Your task to perform on an android device: add a contact in the contacts app Image 0: 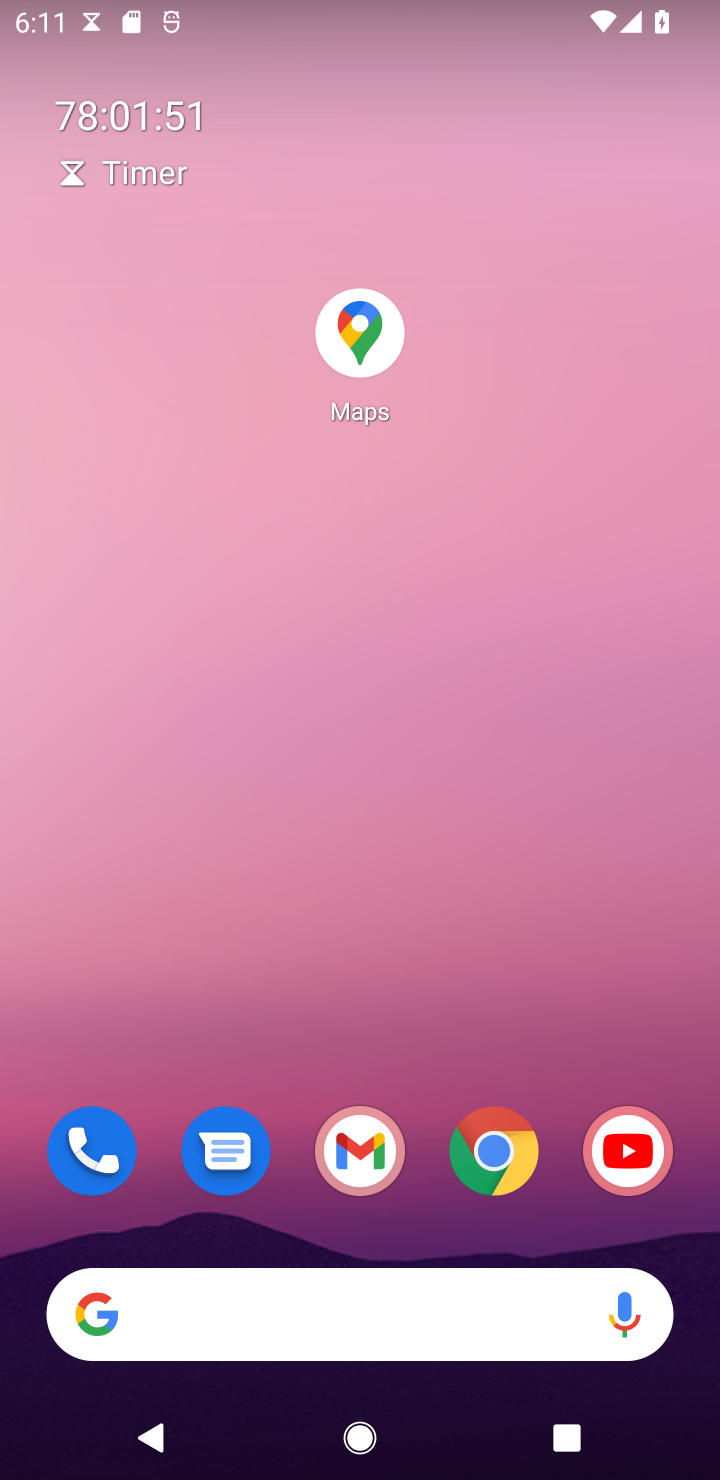
Step 0: drag from (285, 1254) to (308, 194)
Your task to perform on an android device: add a contact in the contacts app Image 1: 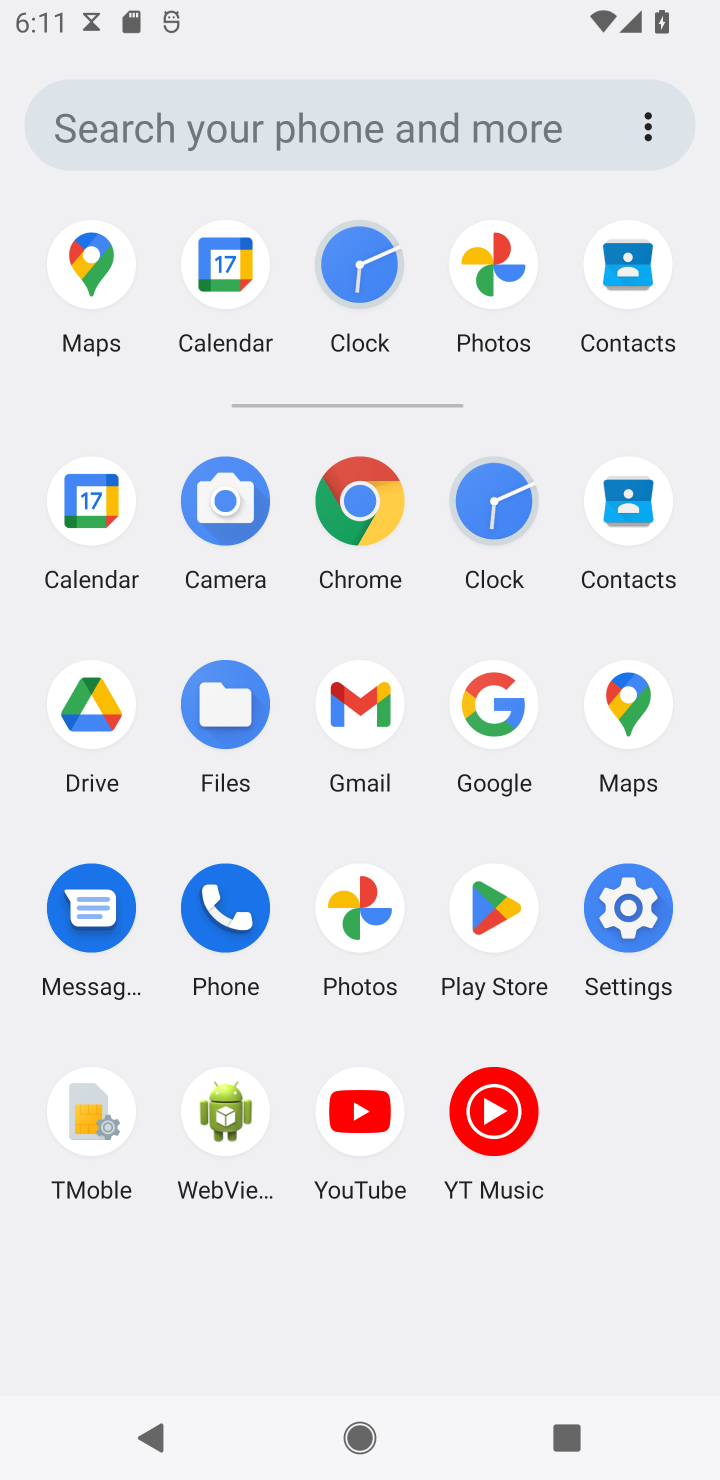
Step 1: click (639, 501)
Your task to perform on an android device: add a contact in the contacts app Image 2: 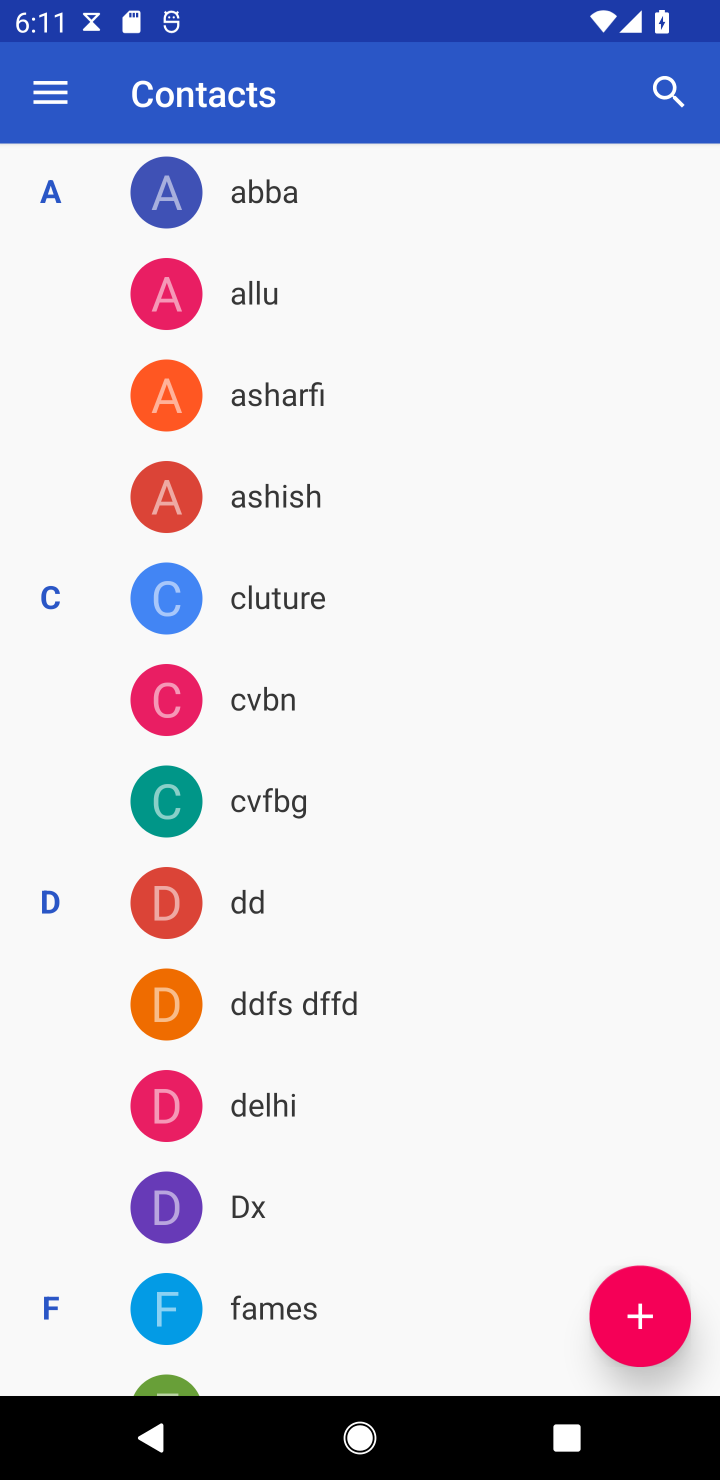
Step 2: click (608, 1283)
Your task to perform on an android device: add a contact in the contacts app Image 3: 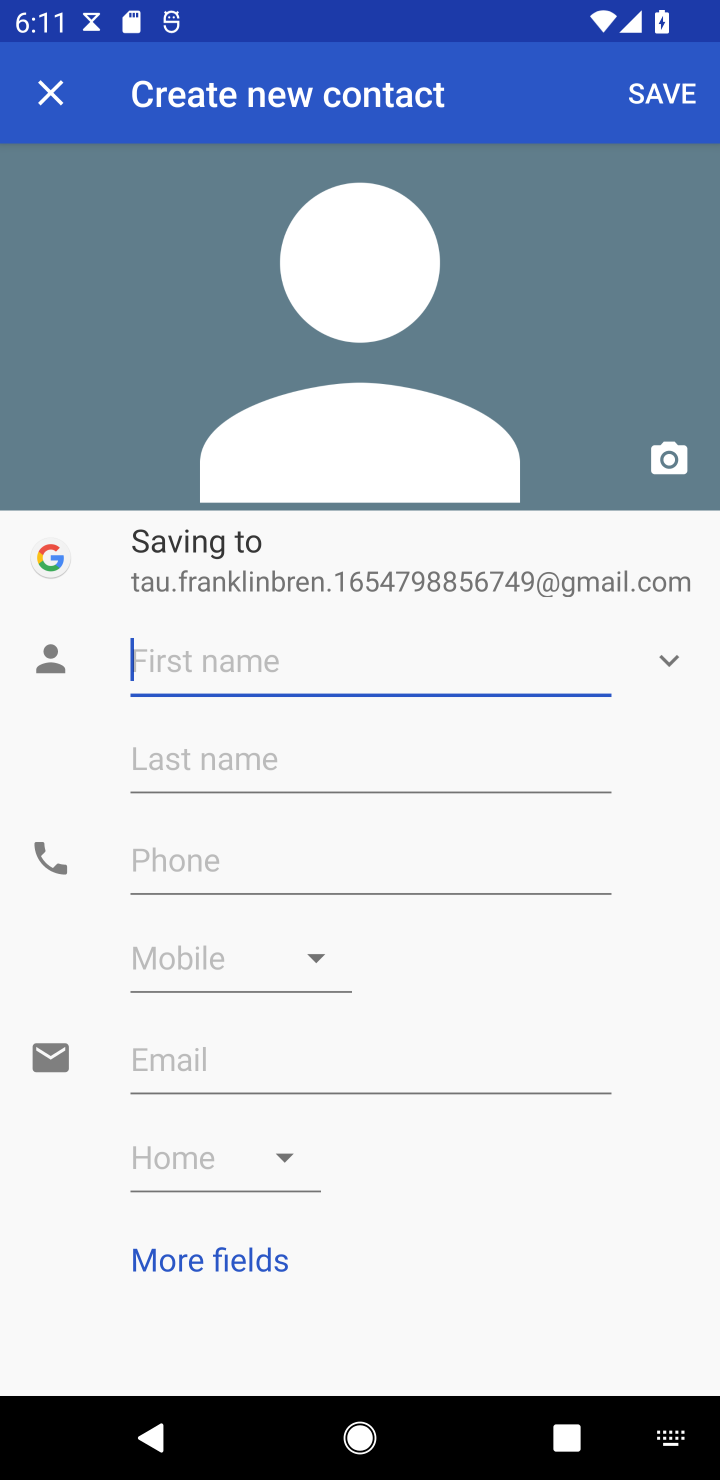
Step 3: click (271, 651)
Your task to perform on an android device: add a contact in the contacts app Image 4: 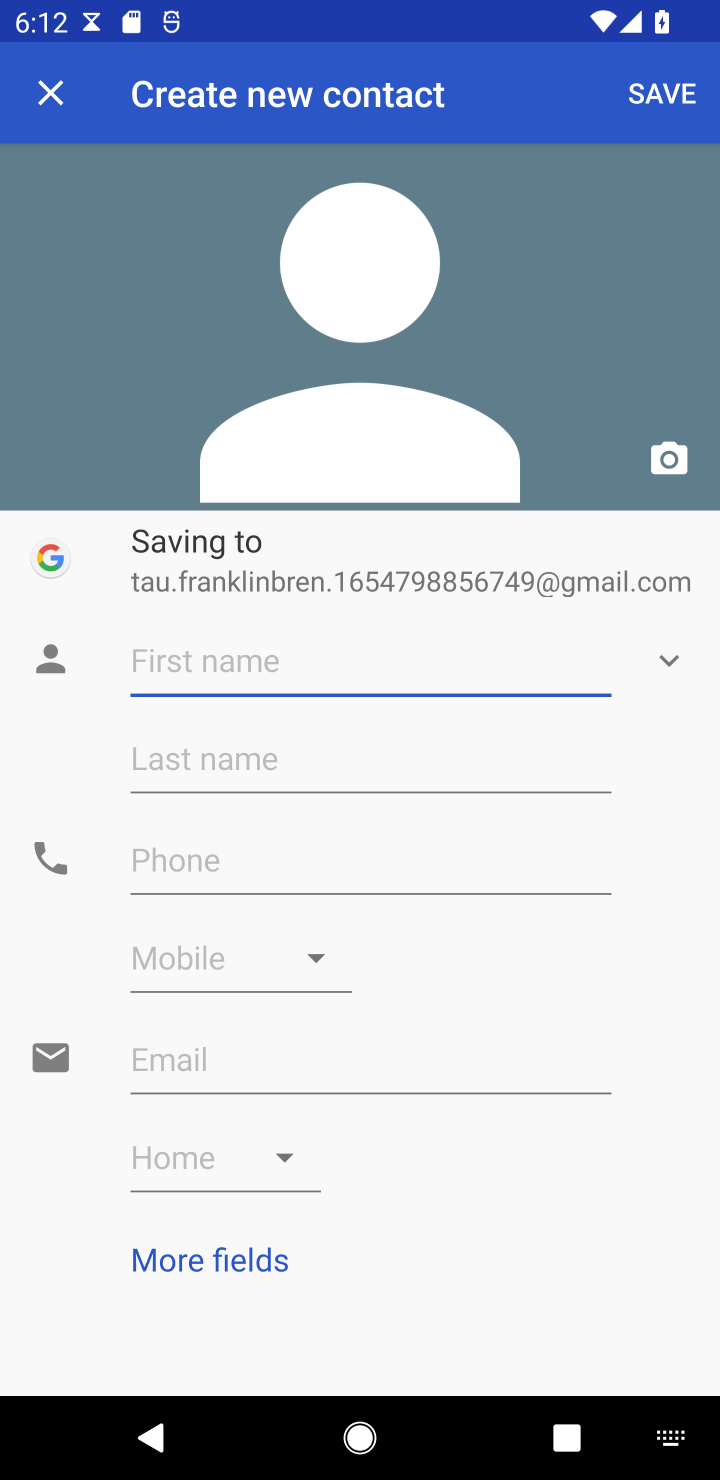
Step 4: type "hhhhhhhhhhhhh "
Your task to perform on an android device: add a contact in the contacts app Image 5: 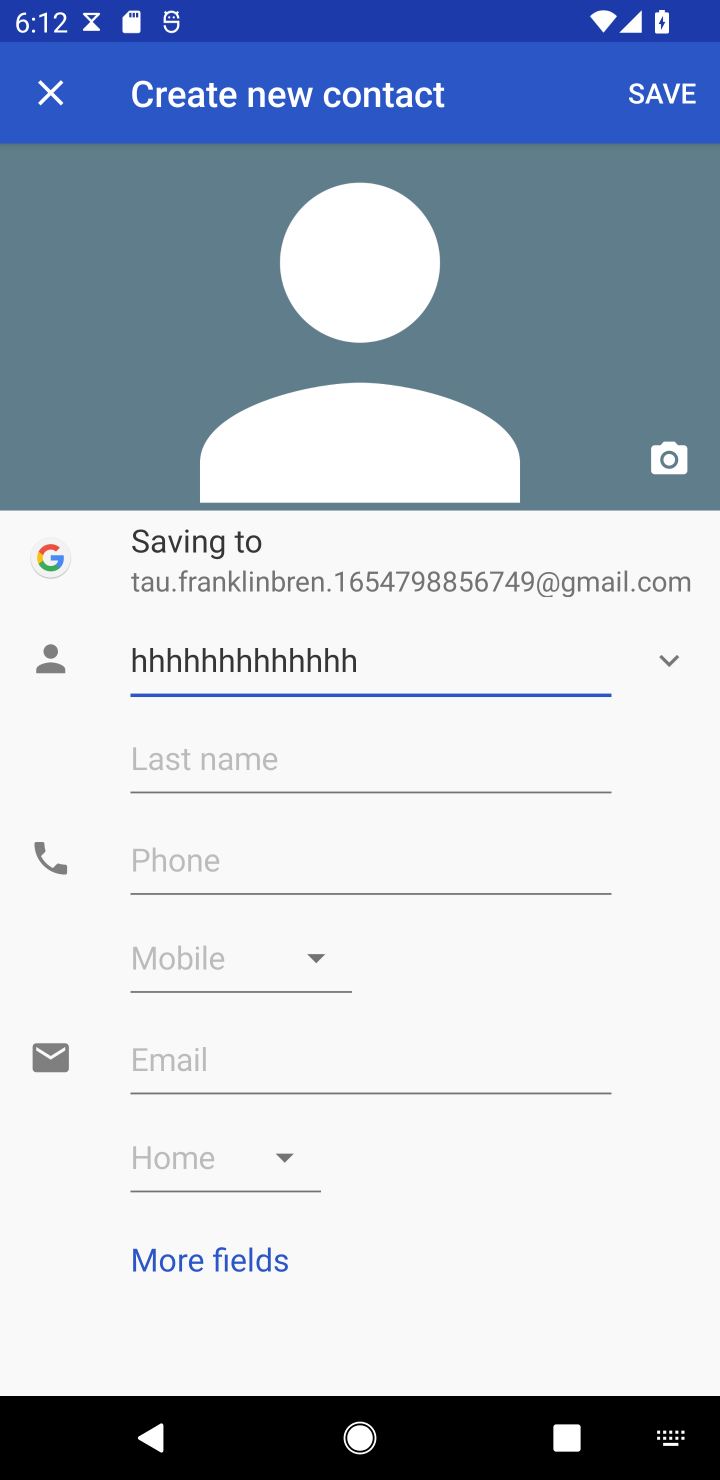
Step 5: click (301, 835)
Your task to perform on an android device: add a contact in the contacts app Image 6: 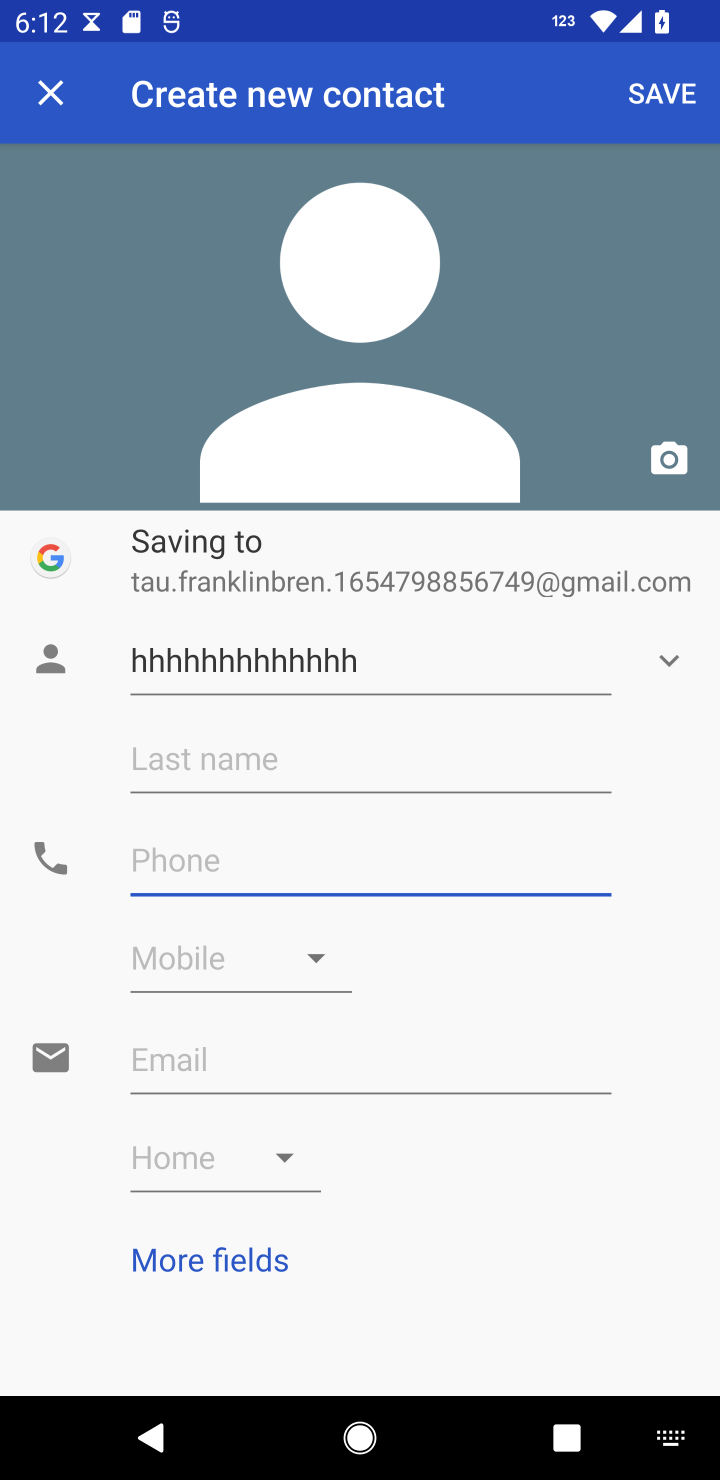
Step 6: type "989898989 "
Your task to perform on an android device: add a contact in the contacts app Image 7: 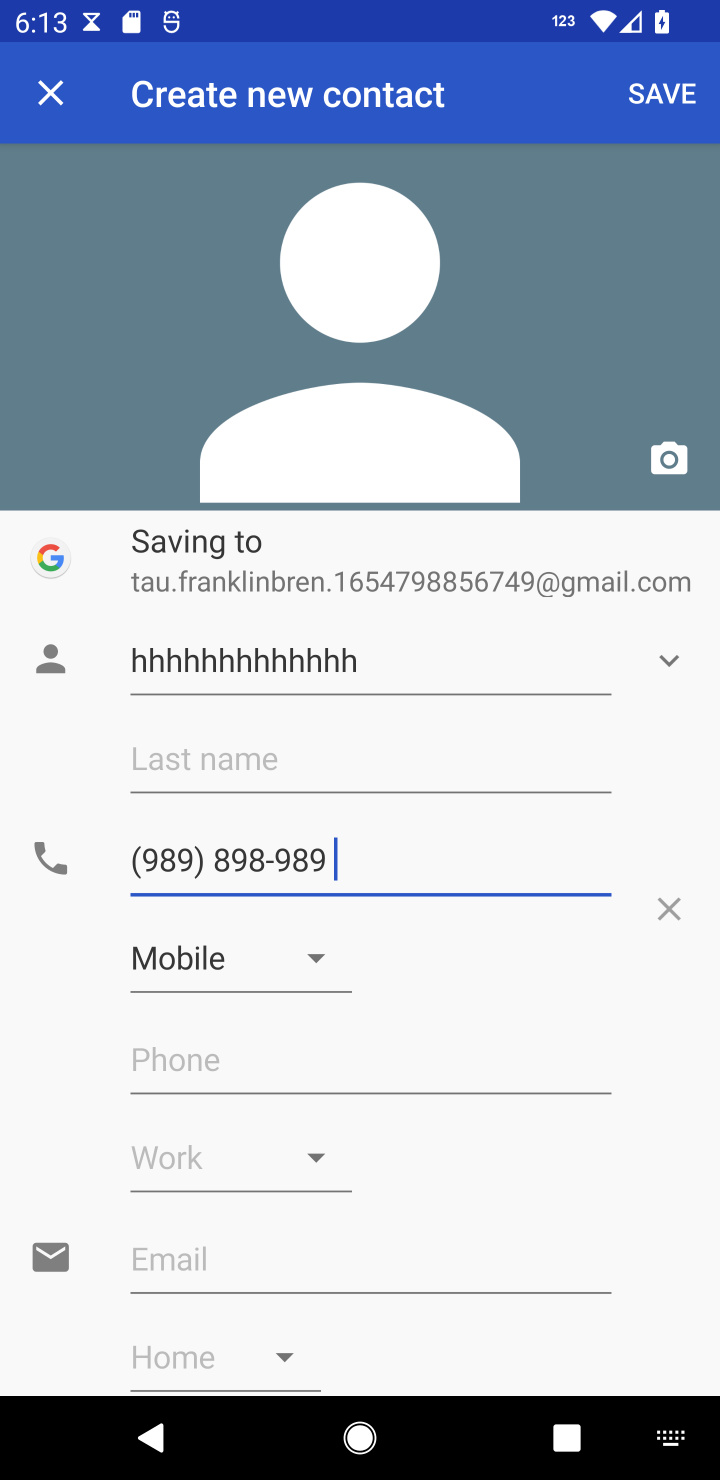
Step 7: click (648, 93)
Your task to perform on an android device: add a contact in the contacts app Image 8: 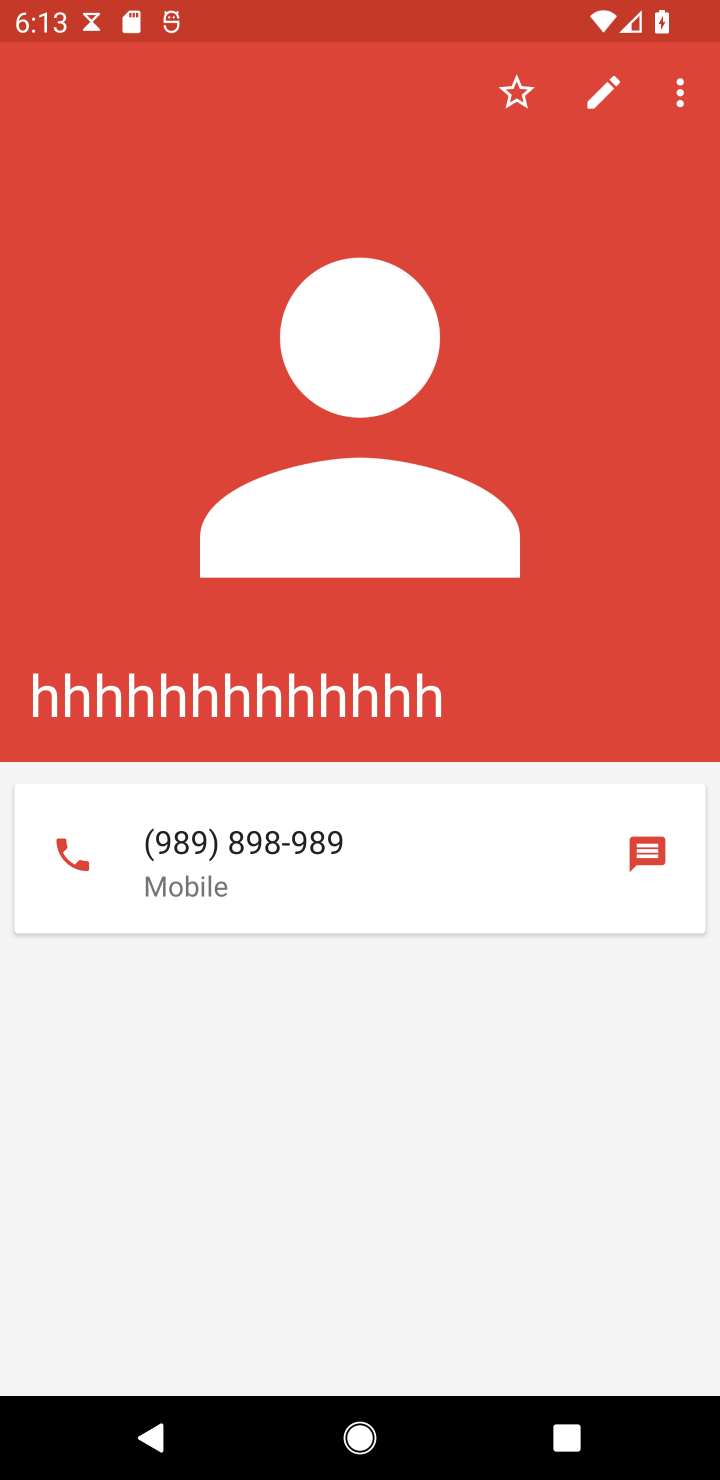
Step 8: task complete